Your task to perform on an android device: Go to sound settings Image 0: 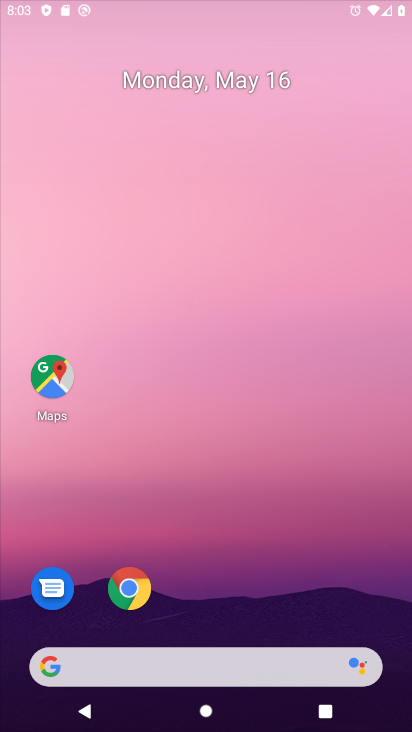
Step 0: drag from (236, 683) to (94, 343)
Your task to perform on an android device: Go to sound settings Image 1: 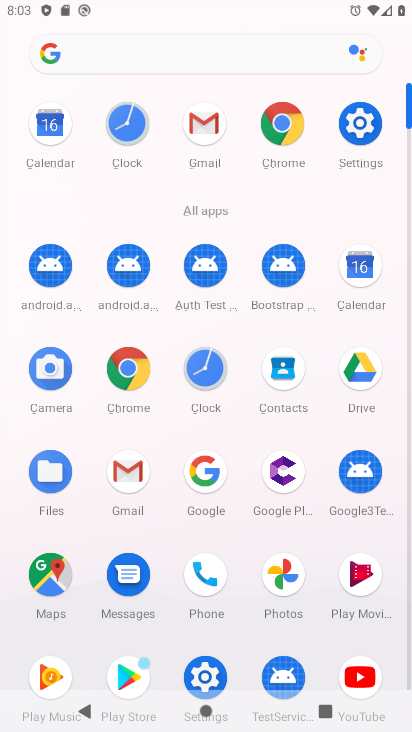
Step 1: click (351, 124)
Your task to perform on an android device: Go to sound settings Image 2: 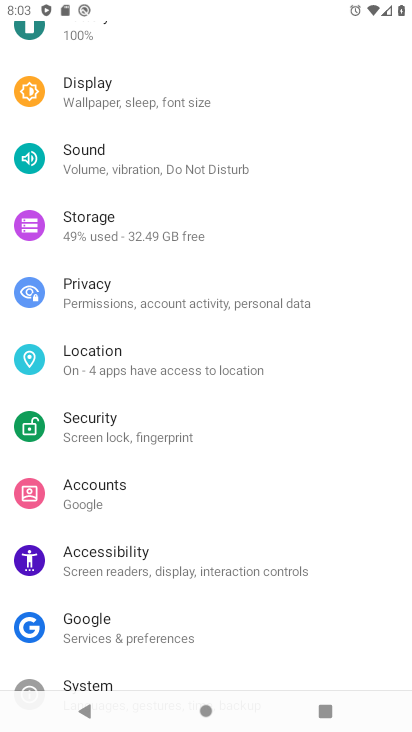
Step 2: click (94, 154)
Your task to perform on an android device: Go to sound settings Image 3: 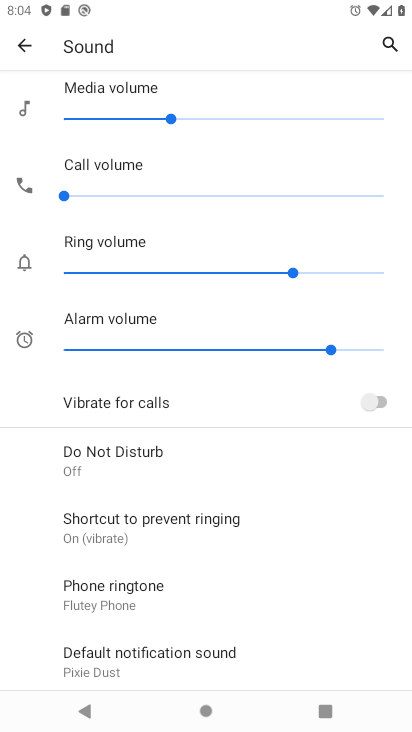
Step 3: task complete